Your task to perform on an android device: Open Google Chrome and click the shortcut for Amazon.com Image 0: 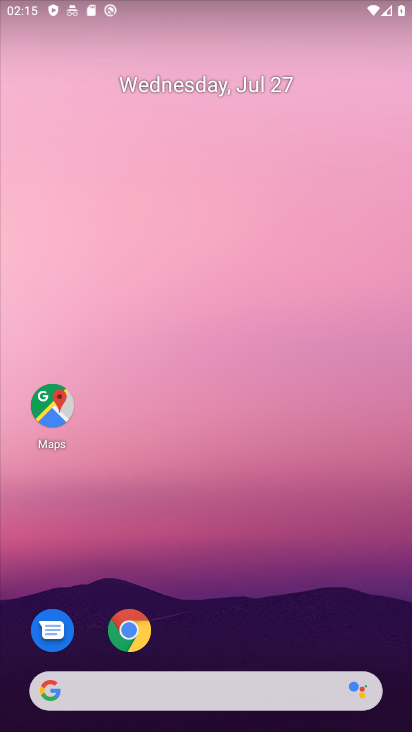
Step 0: drag from (218, 59) to (235, 113)
Your task to perform on an android device: Open Google Chrome and click the shortcut for Amazon.com Image 1: 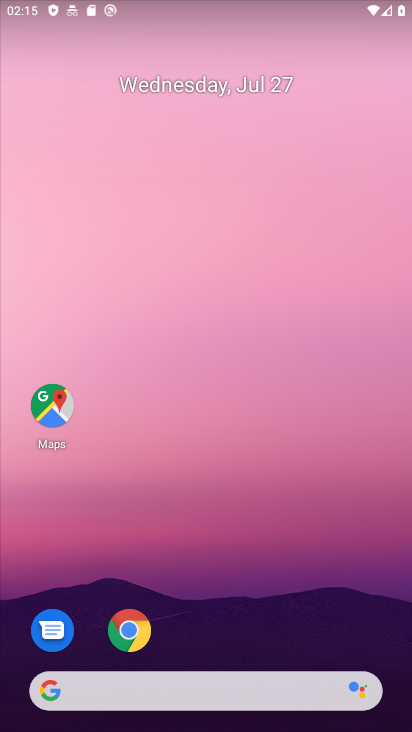
Step 1: drag from (259, 673) to (172, 355)
Your task to perform on an android device: Open Google Chrome and click the shortcut for Amazon.com Image 2: 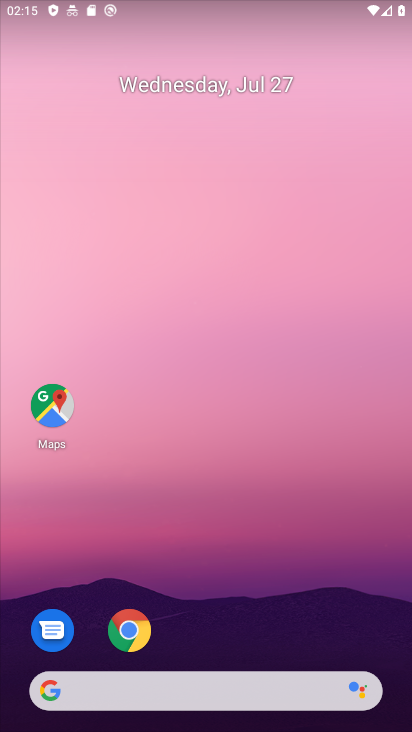
Step 2: drag from (192, 552) to (217, 160)
Your task to perform on an android device: Open Google Chrome and click the shortcut for Amazon.com Image 3: 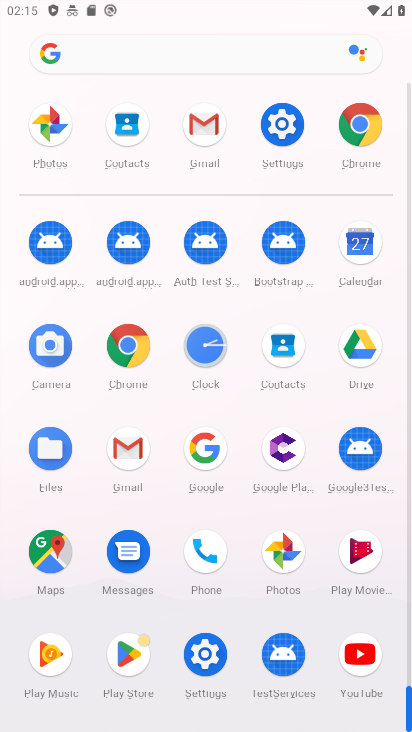
Step 3: click (357, 133)
Your task to perform on an android device: Open Google Chrome and click the shortcut for Amazon.com Image 4: 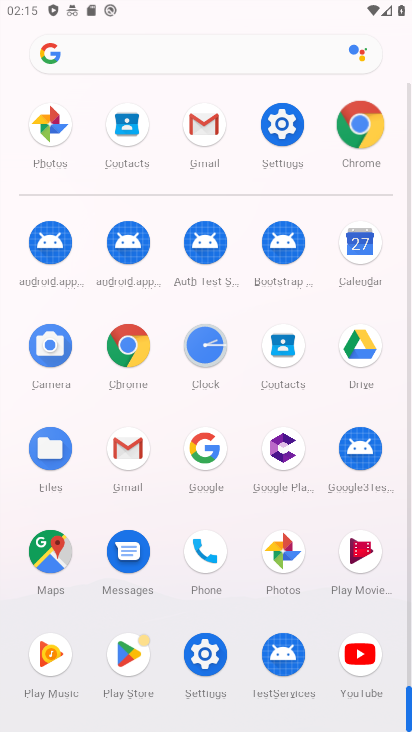
Step 4: click (357, 133)
Your task to perform on an android device: Open Google Chrome and click the shortcut for Amazon.com Image 5: 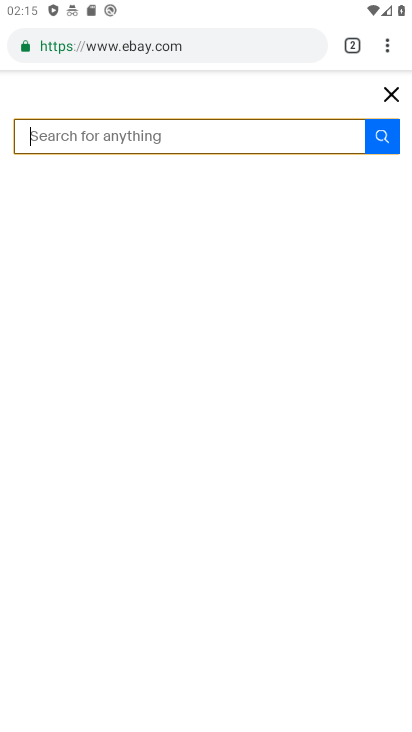
Step 5: drag from (388, 44) to (229, 84)
Your task to perform on an android device: Open Google Chrome and click the shortcut for Amazon.com Image 6: 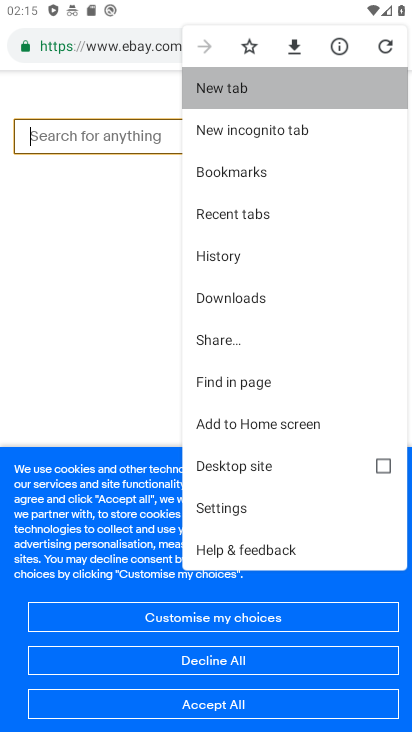
Step 6: click (232, 84)
Your task to perform on an android device: Open Google Chrome and click the shortcut for Amazon.com Image 7: 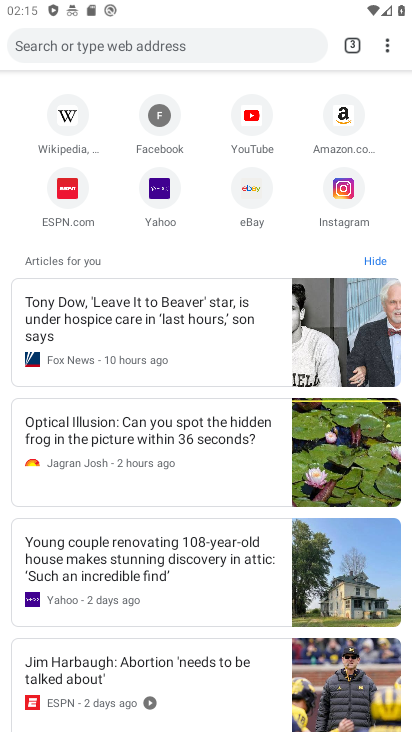
Step 7: click (333, 115)
Your task to perform on an android device: Open Google Chrome and click the shortcut for Amazon.com Image 8: 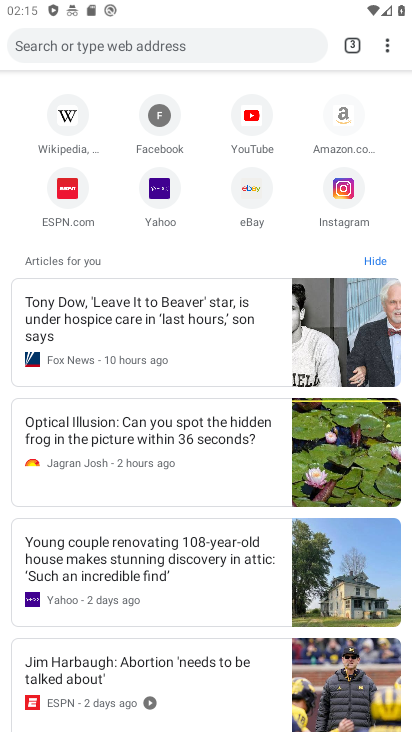
Step 8: click (334, 115)
Your task to perform on an android device: Open Google Chrome and click the shortcut for Amazon.com Image 9: 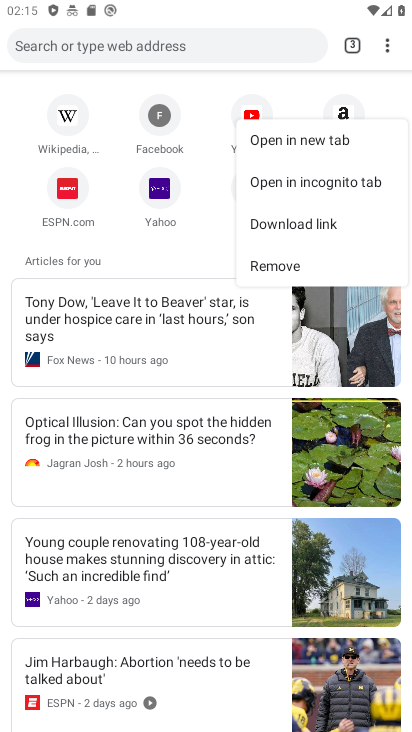
Step 9: click (344, 107)
Your task to perform on an android device: Open Google Chrome and click the shortcut for Amazon.com Image 10: 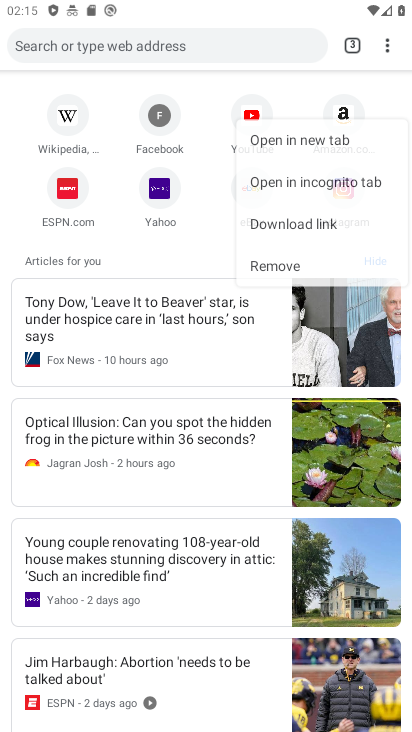
Step 10: click (344, 107)
Your task to perform on an android device: Open Google Chrome and click the shortcut for Amazon.com Image 11: 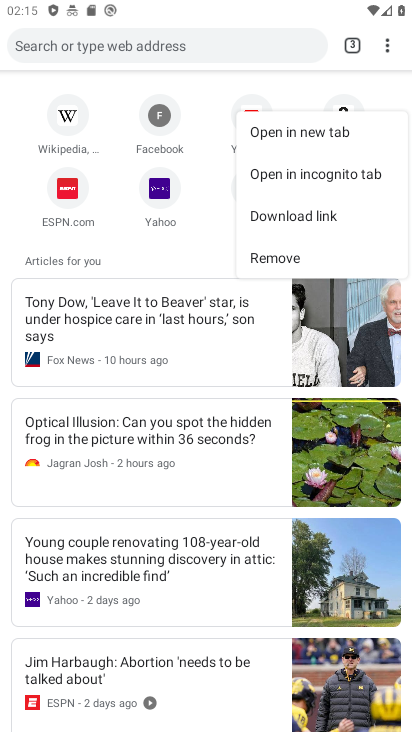
Step 11: click (338, 103)
Your task to perform on an android device: Open Google Chrome and click the shortcut for Amazon.com Image 12: 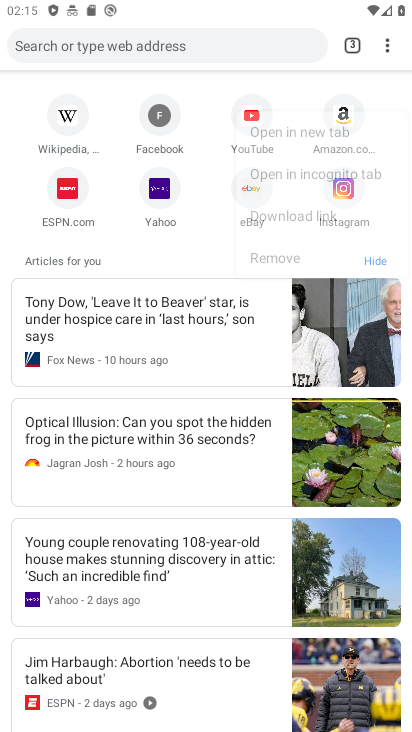
Step 12: click (343, 98)
Your task to perform on an android device: Open Google Chrome and click the shortcut for Amazon.com Image 13: 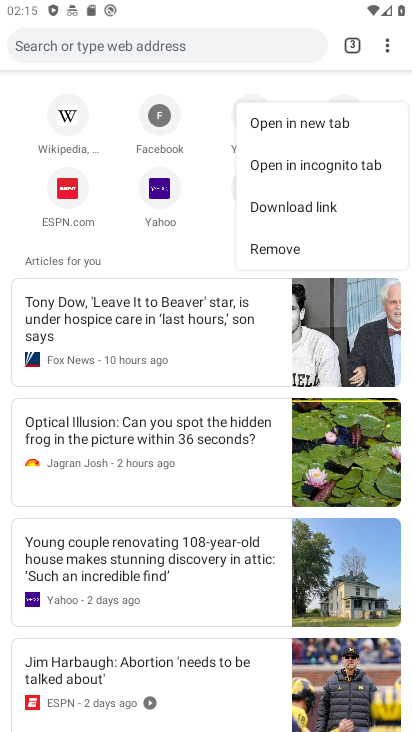
Step 13: click (348, 116)
Your task to perform on an android device: Open Google Chrome and click the shortcut for Amazon.com Image 14: 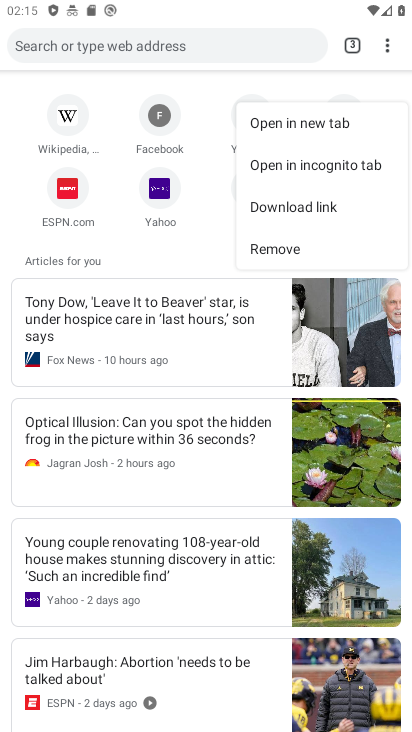
Step 14: click (347, 117)
Your task to perform on an android device: Open Google Chrome and click the shortcut for Amazon.com Image 15: 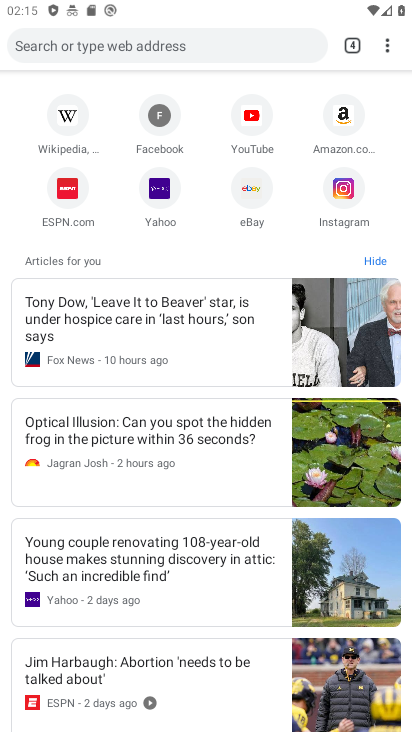
Step 15: click (335, 119)
Your task to perform on an android device: Open Google Chrome and click the shortcut for Amazon.com Image 16: 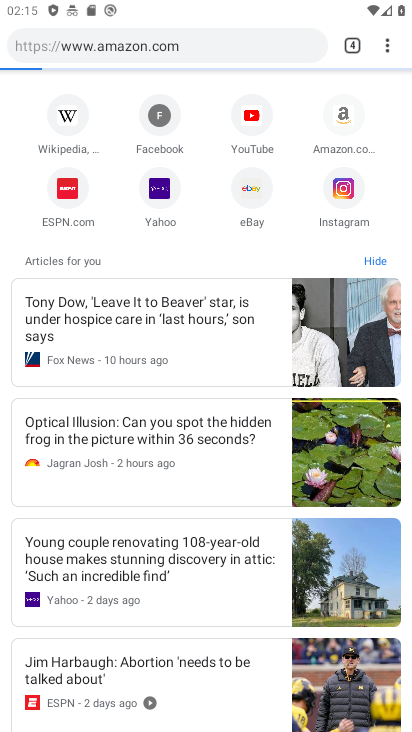
Step 16: click (350, 131)
Your task to perform on an android device: Open Google Chrome and click the shortcut for Amazon.com Image 17: 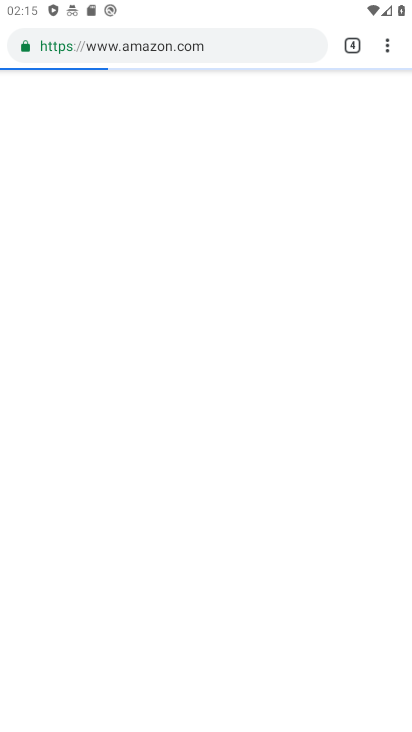
Step 17: click (353, 130)
Your task to perform on an android device: Open Google Chrome and click the shortcut for Amazon.com Image 18: 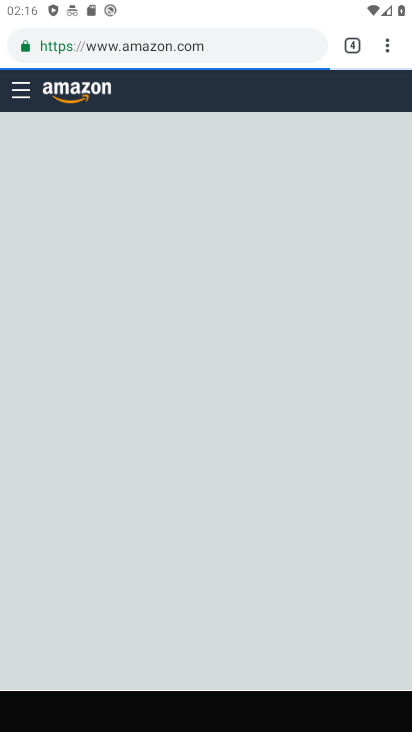
Step 18: task complete